Your task to perform on an android device: turn notification dots off Image 0: 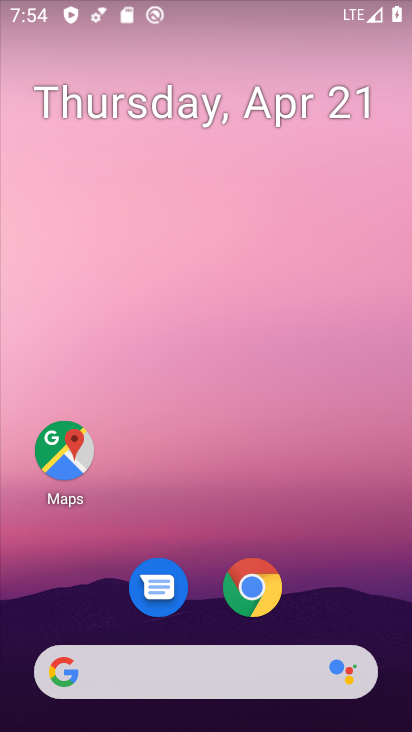
Step 0: drag from (364, 438) to (325, 112)
Your task to perform on an android device: turn notification dots off Image 1: 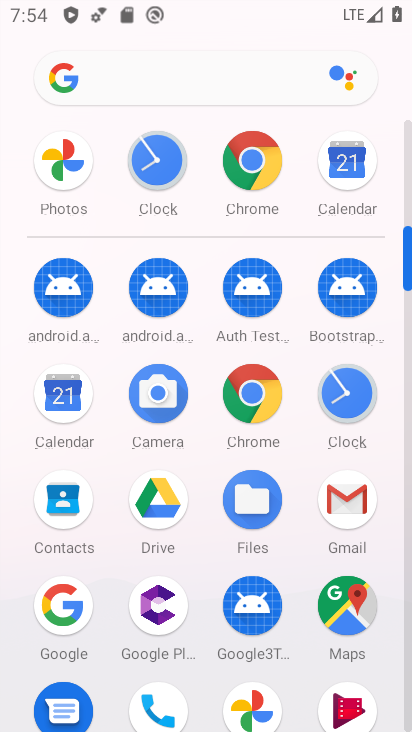
Step 1: click (411, 173)
Your task to perform on an android device: turn notification dots off Image 2: 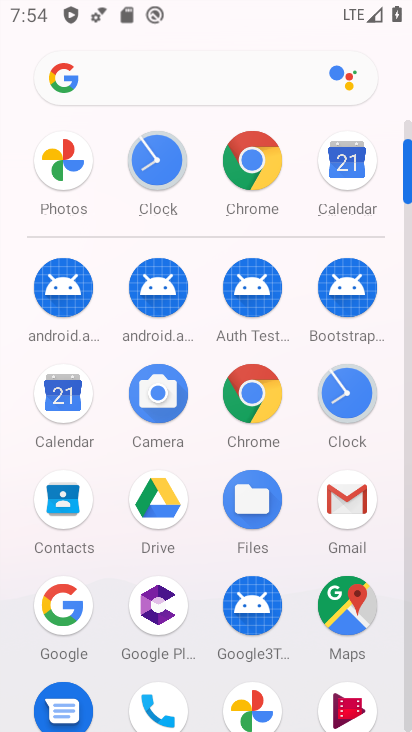
Step 2: click (407, 102)
Your task to perform on an android device: turn notification dots off Image 3: 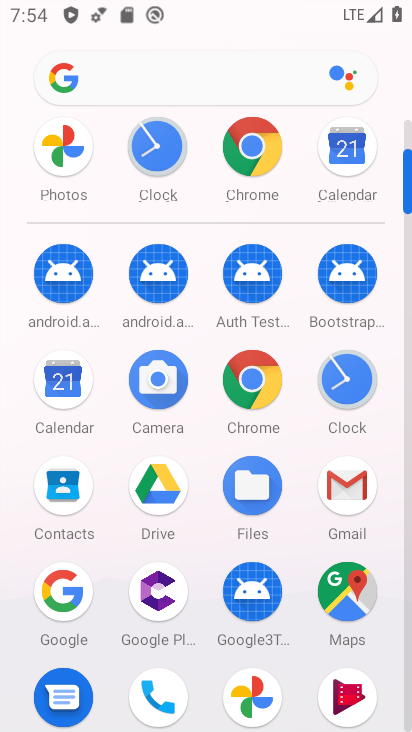
Step 3: click (407, 117)
Your task to perform on an android device: turn notification dots off Image 4: 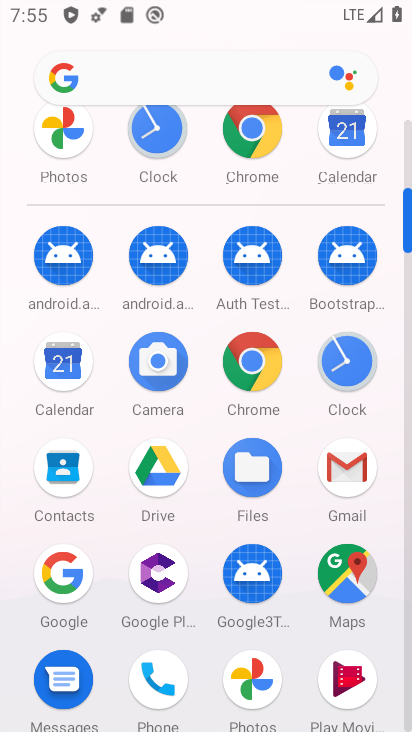
Step 4: drag from (405, 195) to (411, 152)
Your task to perform on an android device: turn notification dots off Image 5: 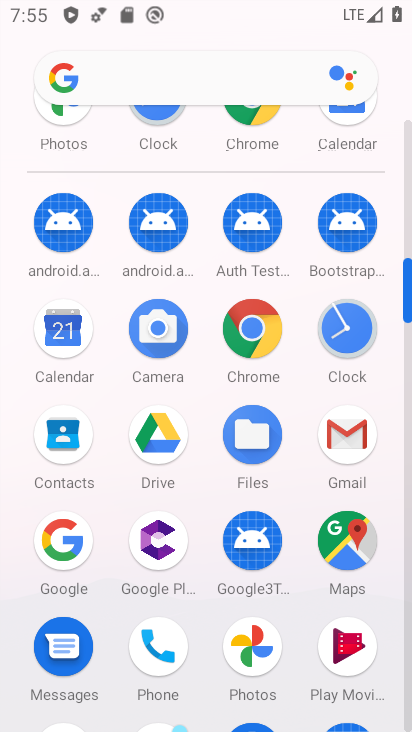
Step 5: drag from (410, 259) to (403, 100)
Your task to perform on an android device: turn notification dots off Image 6: 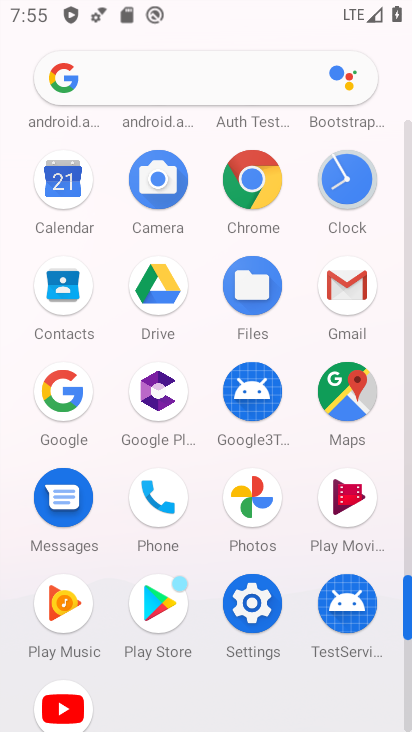
Step 6: click (255, 602)
Your task to perform on an android device: turn notification dots off Image 7: 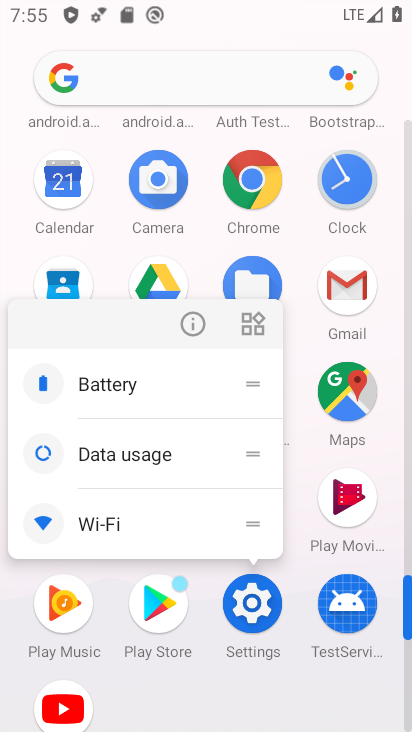
Step 7: click (248, 608)
Your task to perform on an android device: turn notification dots off Image 8: 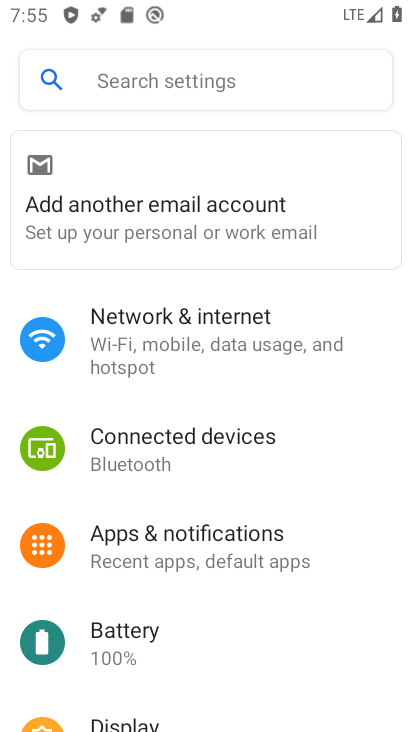
Step 8: click (135, 329)
Your task to perform on an android device: turn notification dots off Image 9: 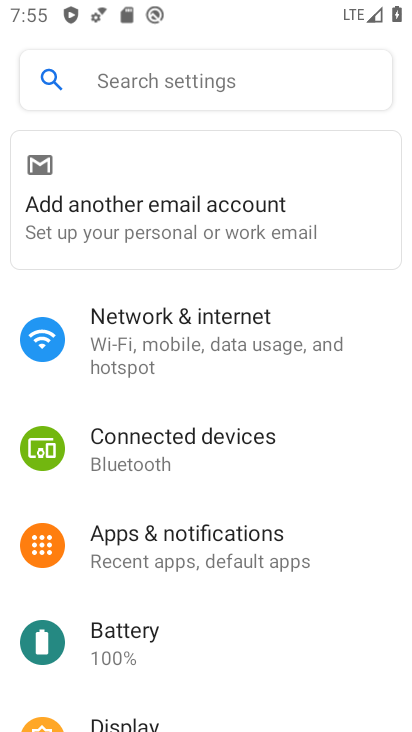
Step 9: click (135, 329)
Your task to perform on an android device: turn notification dots off Image 10: 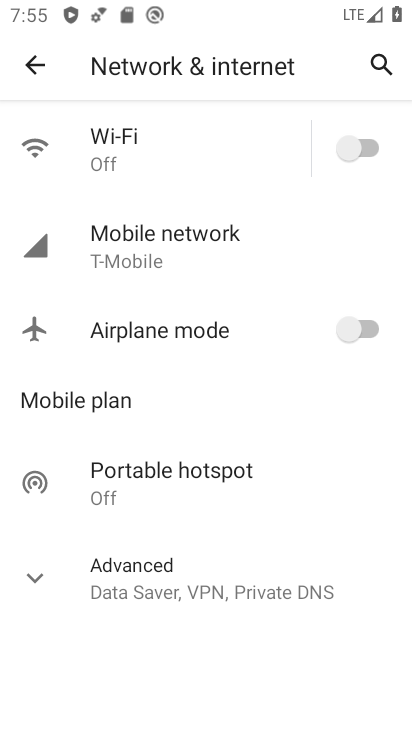
Step 10: press back button
Your task to perform on an android device: turn notification dots off Image 11: 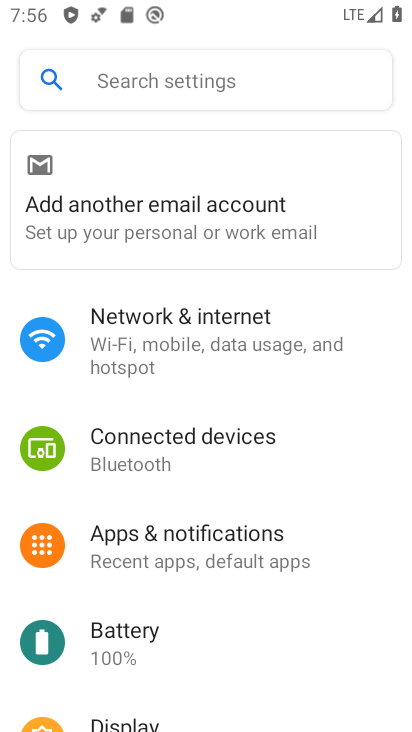
Step 11: click (123, 538)
Your task to perform on an android device: turn notification dots off Image 12: 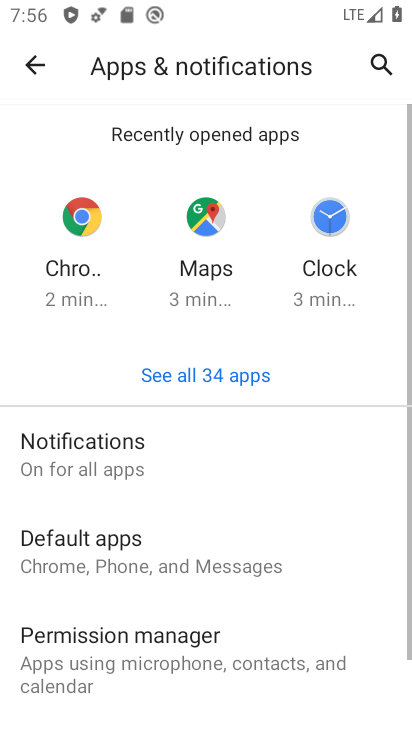
Step 12: drag from (292, 680) to (293, 326)
Your task to perform on an android device: turn notification dots off Image 13: 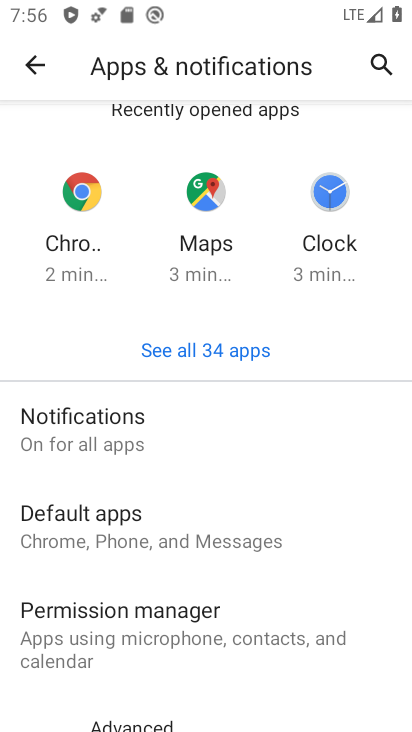
Step 13: drag from (285, 630) to (285, 403)
Your task to perform on an android device: turn notification dots off Image 14: 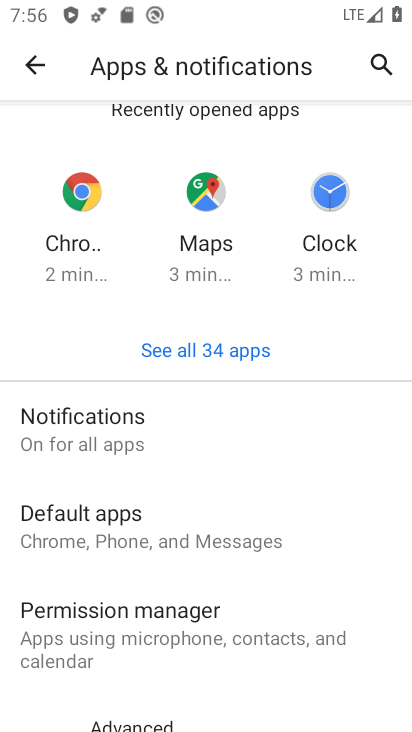
Step 14: click (58, 428)
Your task to perform on an android device: turn notification dots off Image 15: 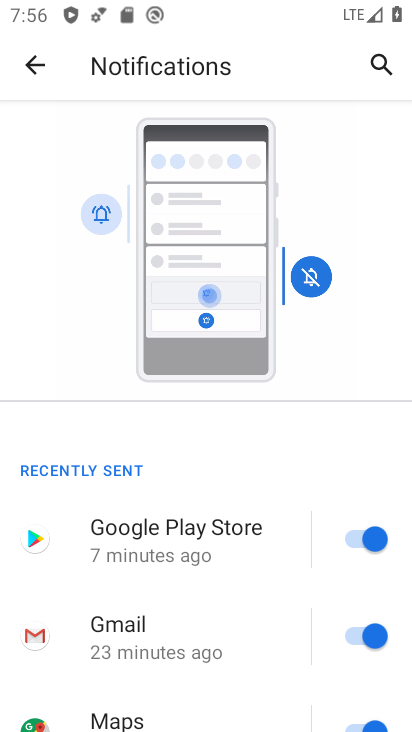
Step 15: drag from (279, 440) to (287, 348)
Your task to perform on an android device: turn notification dots off Image 16: 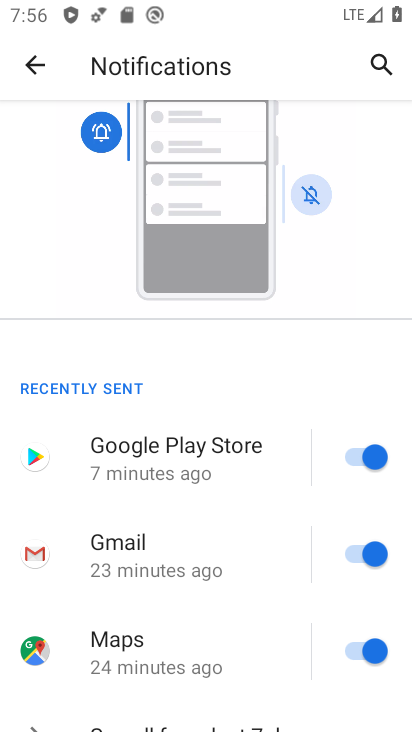
Step 16: drag from (281, 640) to (309, 182)
Your task to perform on an android device: turn notification dots off Image 17: 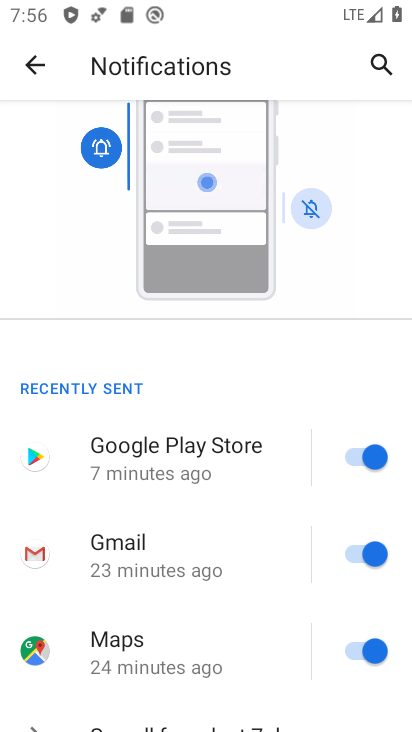
Step 17: drag from (284, 694) to (288, 177)
Your task to perform on an android device: turn notification dots off Image 18: 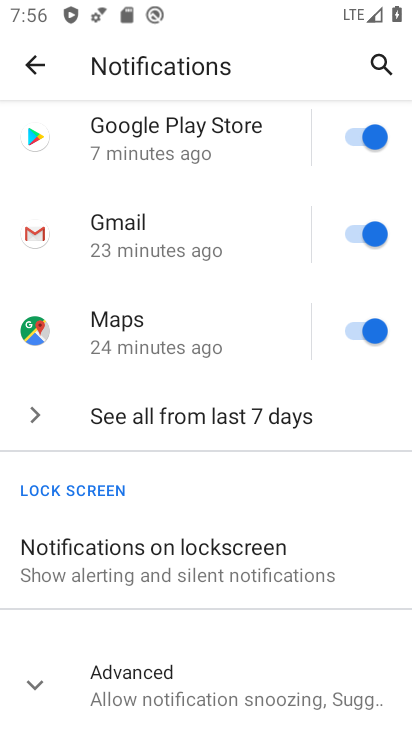
Step 18: click (100, 557)
Your task to perform on an android device: turn notification dots off Image 19: 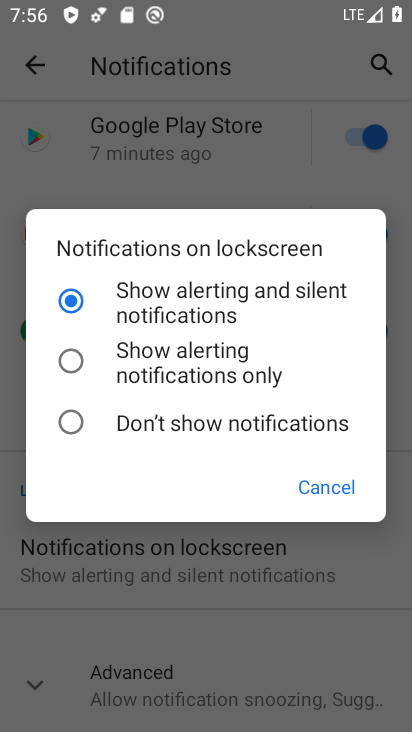
Step 19: click (315, 491)
Your task to perform on an android device: turn notification dots off Image 20: 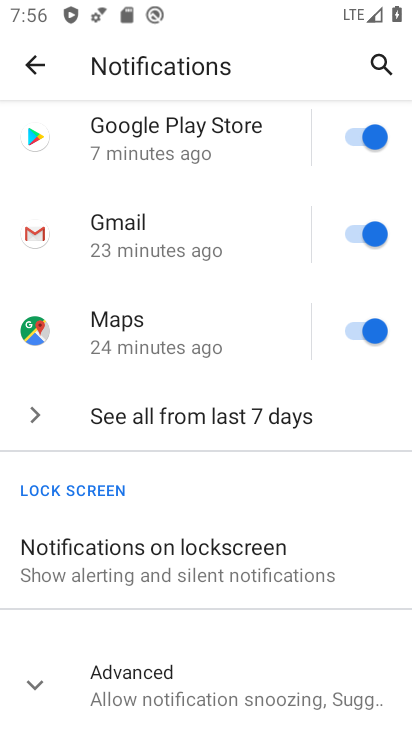
Step 20: click (38, 688)
Your task to perform on an android device: turn notification dots off Image 21: 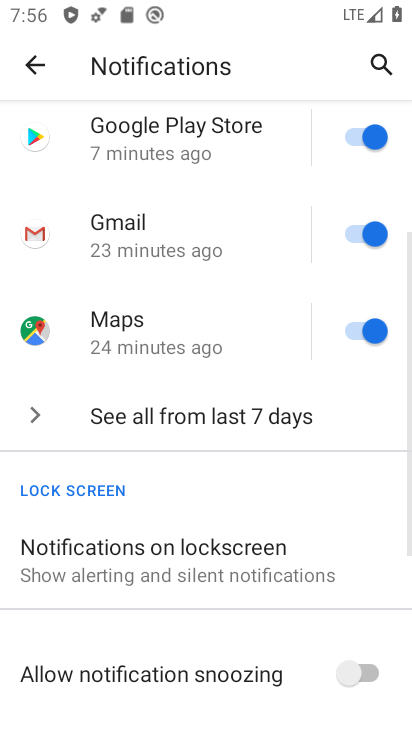
Step 21: drag from (256, 666) to (288, 325)
Your task to perform on an android device: turn notification dots off Image 22: 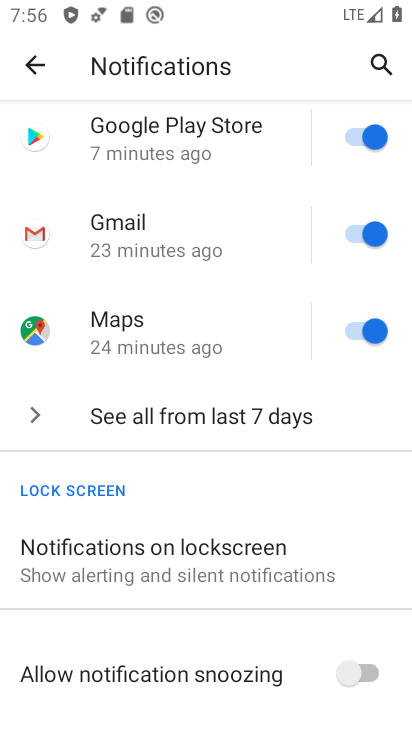
Step 22: drag from (270, 629) to (241, 271)
Your task to perform on an android device: turn notification dots off Image 23: 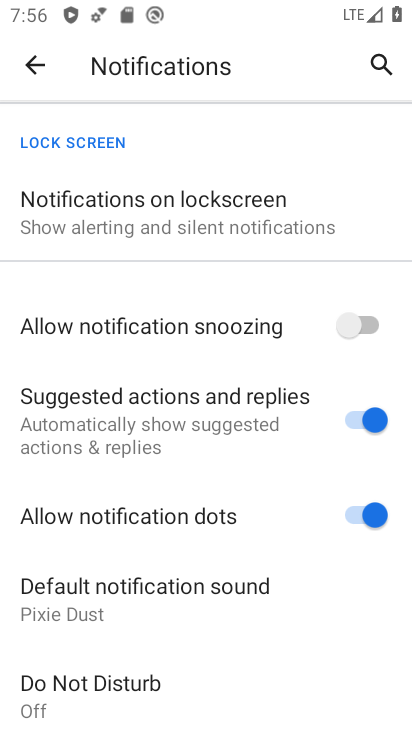
Step 23: drag from (249, 658) to (260, 250)
Your task to perform on an android device: turn notification dots off Image 24: 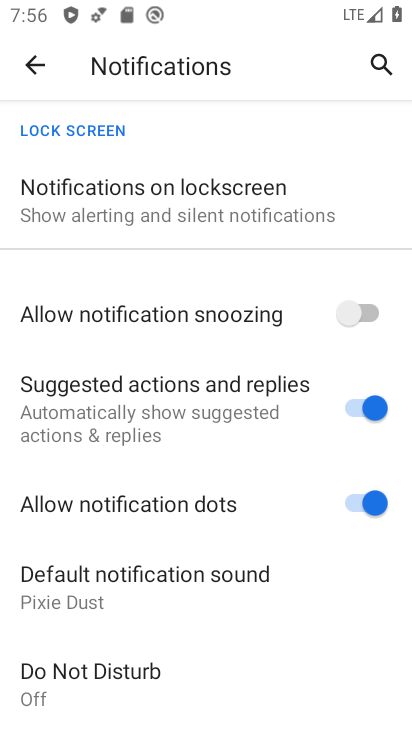
Step 24: click (355, 503)
Your task to perform on an android device: turn notification dots off Image 25: 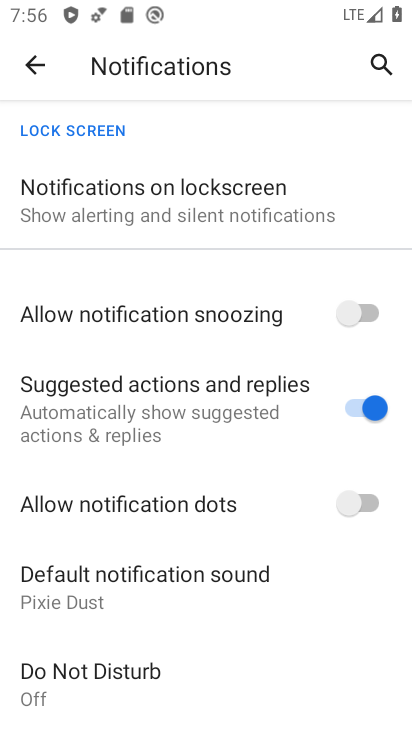
Step 25: task complete